Your task to perform on an android device: Is it going to rain today? Image 0: 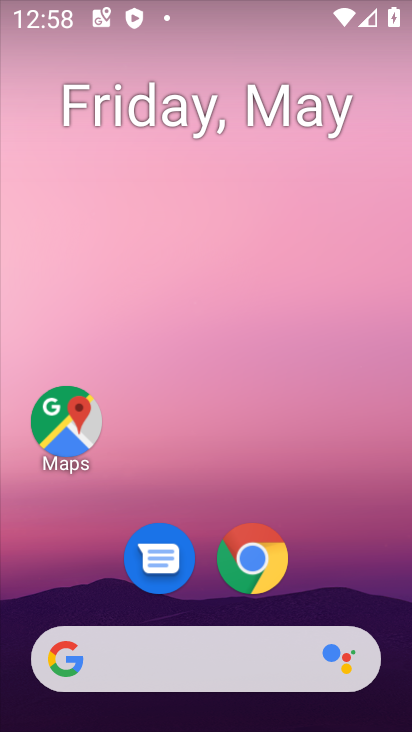
Step 0: drag from (380, 606) to (295, 10)
Your task to perform on an android device: Is it going to rain today? Image 1: 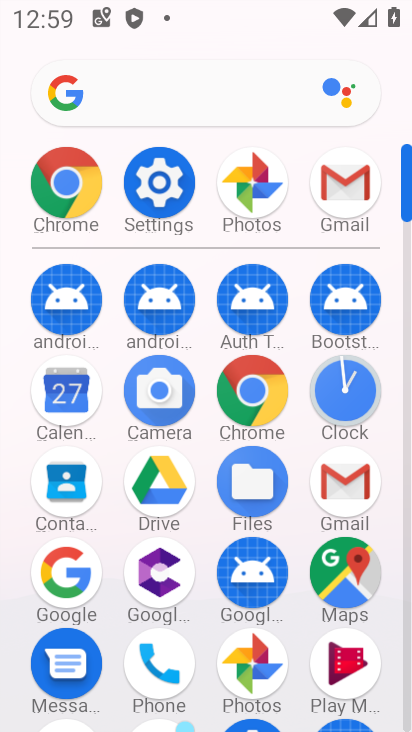
Step 1: click (83, 161)
Your task to perform on an android device: Is it going to rain today? Image 2: 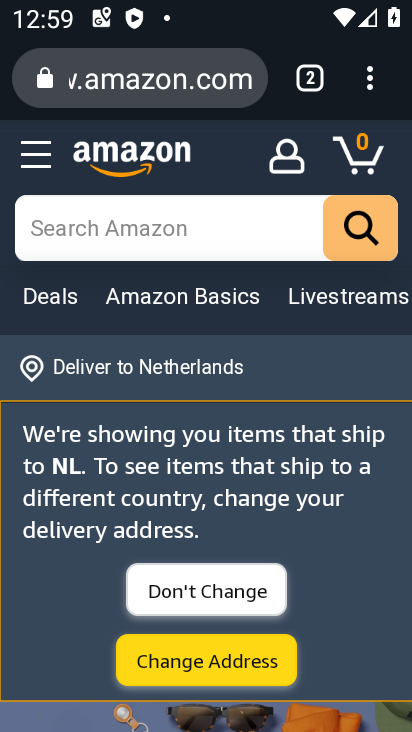
Step 2: click (175, 77)
Your task to perform on an android device: Is it going to rain today? Image 3: 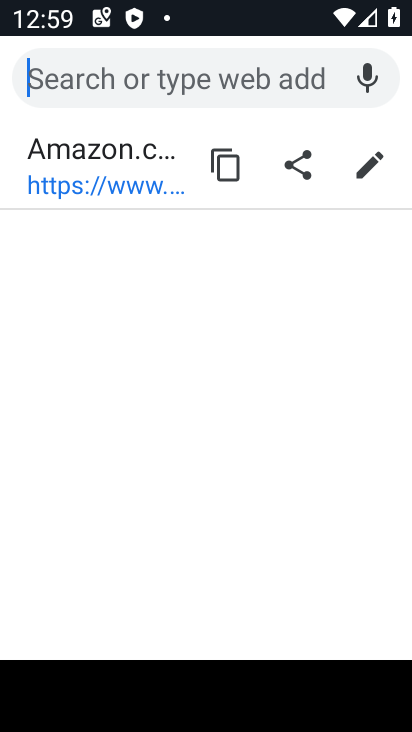
Step 3: type "Is it going to rain today?"
Your task to perform on an android device: Is it going to rain today? Image 4: 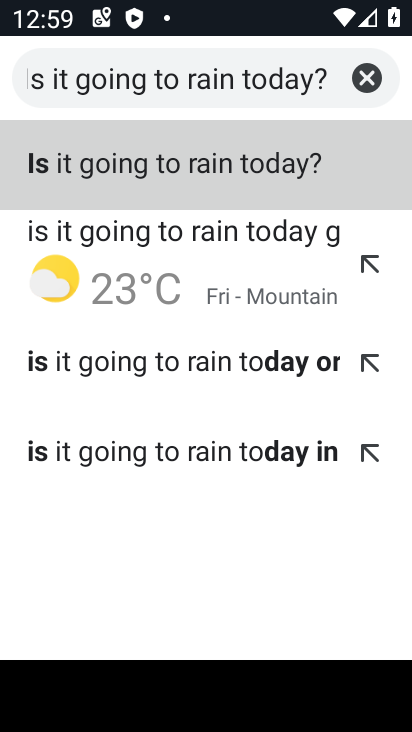
Step 4: click (246, 167)
Your task to perform on an android device: Is it going to rain today? Image 5: 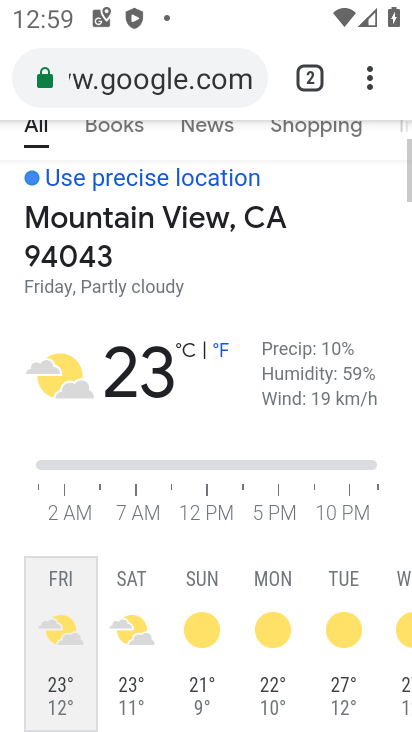
Step 5: task complete